Your task to perform on an android device: change keyboard looks Image 0: 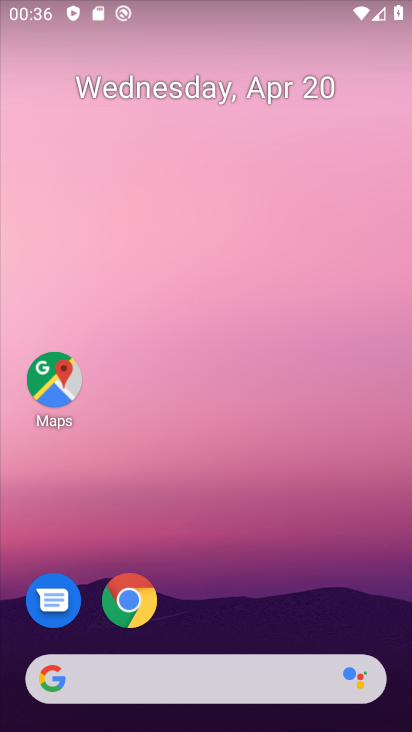
Step 0: drag from (398, 596) to (373, 39)
Your task to perform on an android device: change keyboard looks Image 1: 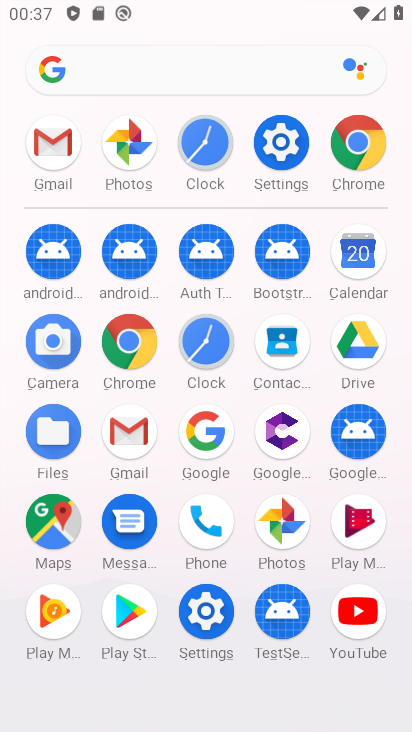
Step 1: drag from (5, 488) to (26, 182)
Your task to perform on an android device: change keyboard looks Image 2: 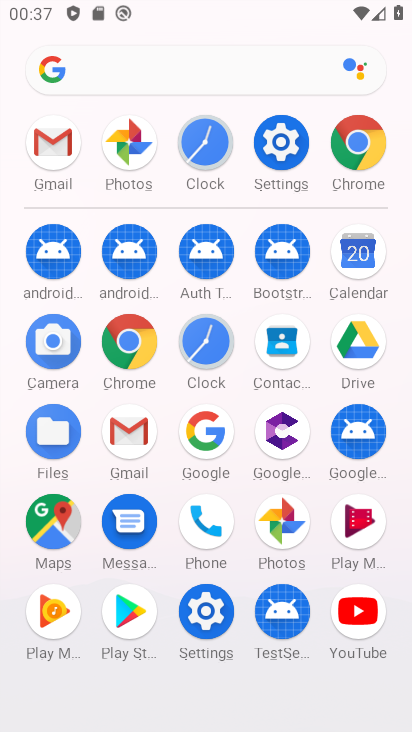
Step 2: click (202, 613)
Your task to perform on an android device: change keyboard looks Image 3: 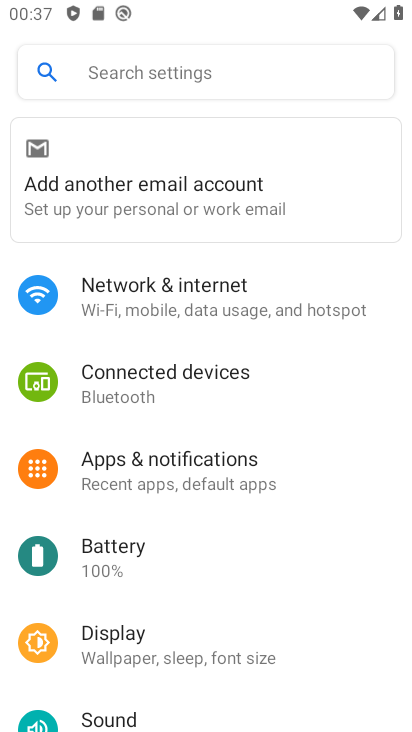
Step 3: drag from (231, 570) to (221, 158)
Your task to perform on an android device: change keyboard looks Image 4: 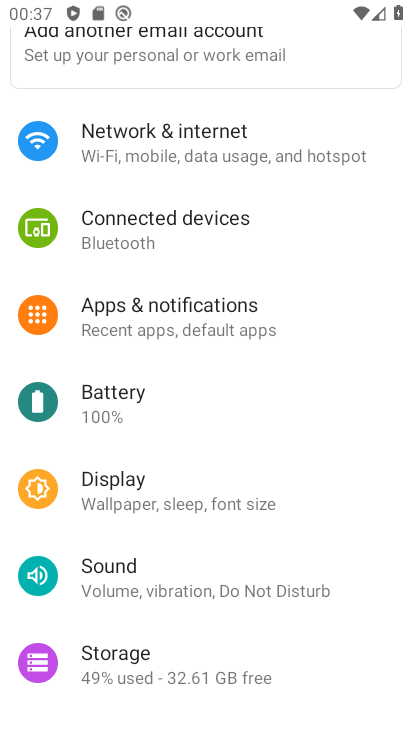
Step 4: drag from (226, 589) to (249, 140)
Your task to perform on an android device: change keyboard looks Image 5: 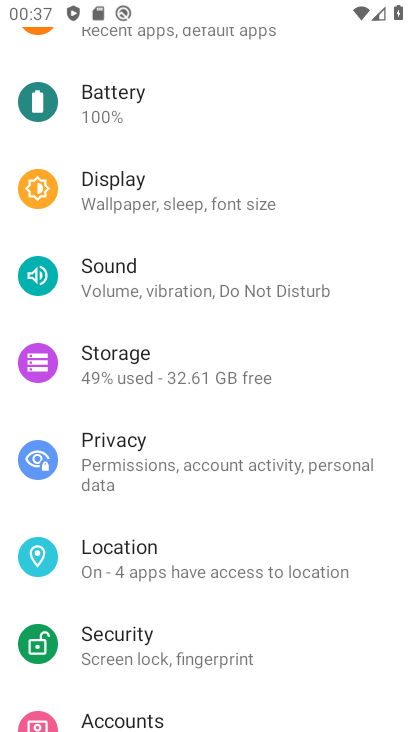
Step 5: drag from (151, 599) to (167, 185)
Your task to perform on an android device: change keyboard looks Image 6: 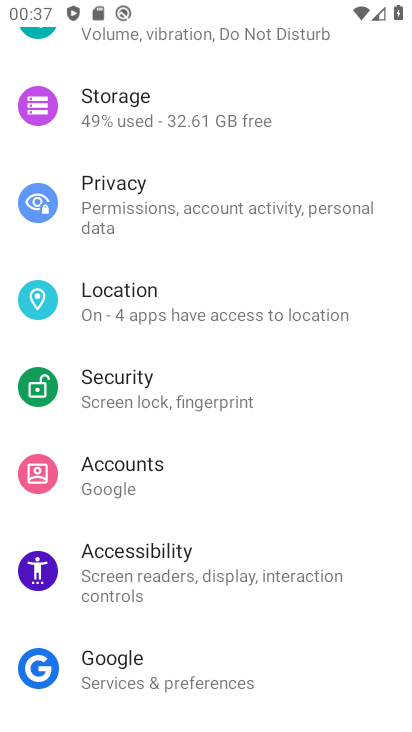
Step 6: drag from (101, 662) to (152, 280)
Your task to perform on an android device: change keyboard looks Image 7: 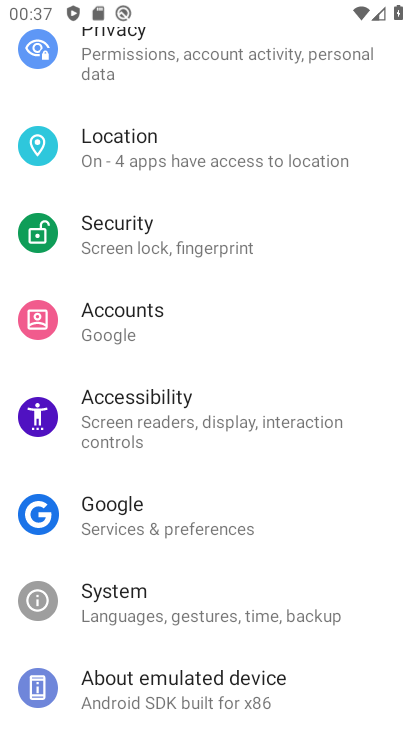
Step 7: click (163, 603)
Your task to perform on an android device: change keyboard looks Image 8: 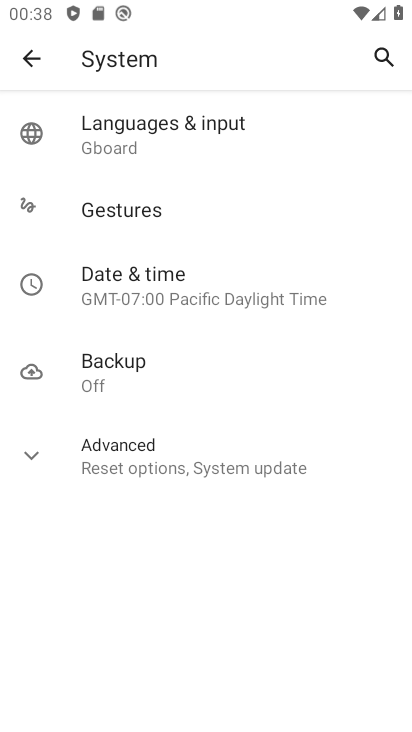
Step 8: click (106, 169)
Your task to perform on an android device: change keyboard looks Image 9: 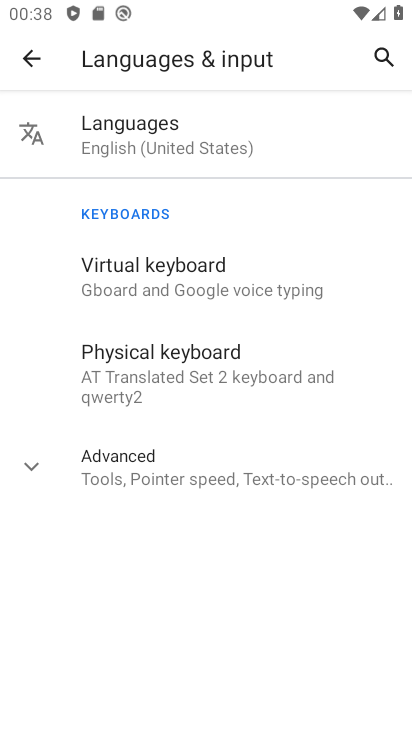
Step 9: click (125, 286)
Your task to perform on an android device: change keyboard looks Image 10: 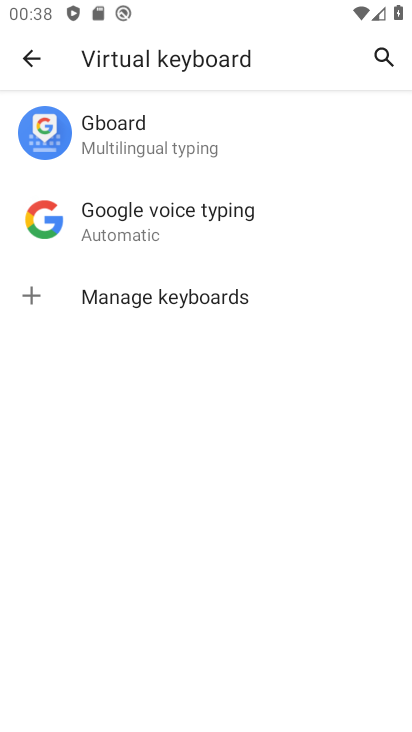
Step 10: click (178, 144)
Your task to perform on an android device: change keyboard looks Image 11: 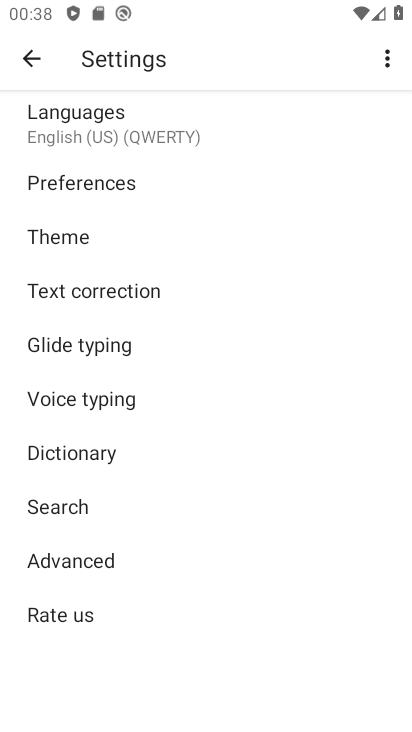
Step 11: click (142, 239)
Your task to perform on an android device: change keyboard looks Image 12: 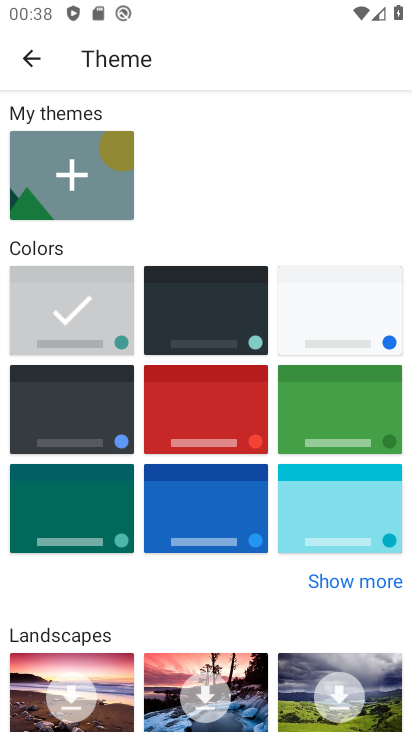
Step 12: click (307, 532)
Your task to perform on an android device: change keyboard looks Image 13: 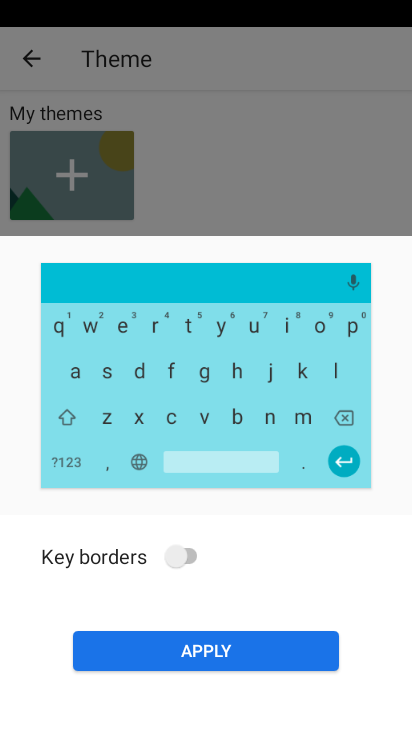
Step 13: click (146, 652)
Your task to perform on an android device: change keyboard looks Image 14: 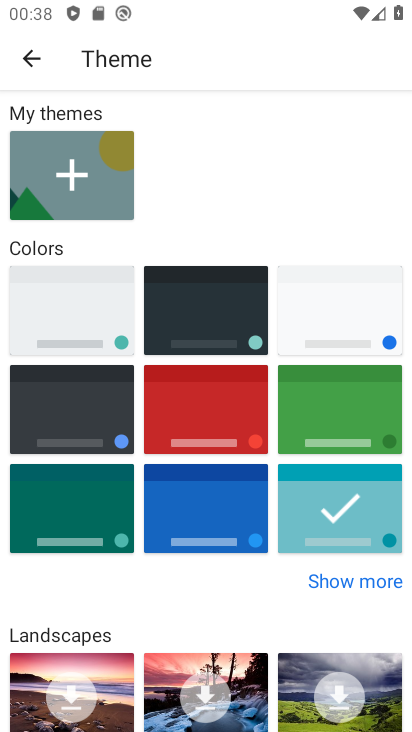
Step 14: task complete